Your task to perform on an android device: Set the phone to "Do not disturb". Image 0: 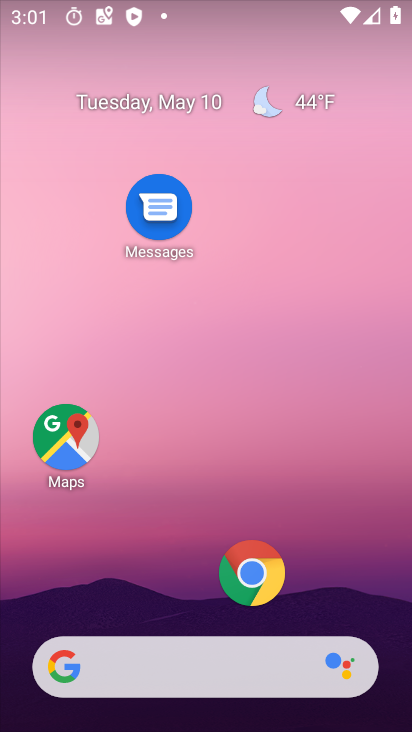
Step 0: drag from (201, 584) to (267, 219)
Your task to perform on an android device: Set the phone to "Do not disturb". Image 1: 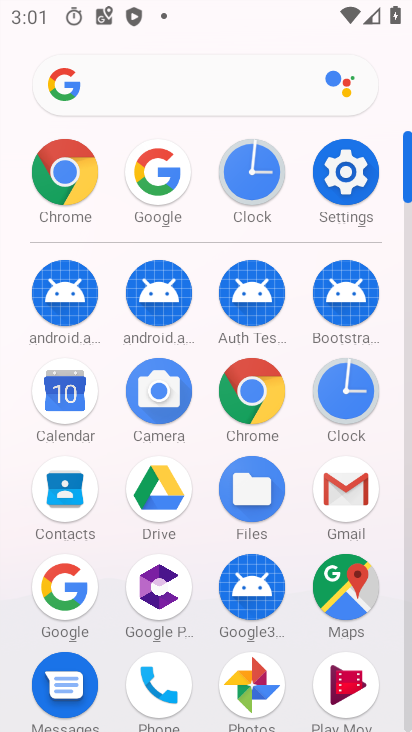
Step 1: click (316, 176)
Your task to perform on an android device: Set the phone to "Do not disturb". Image 2: 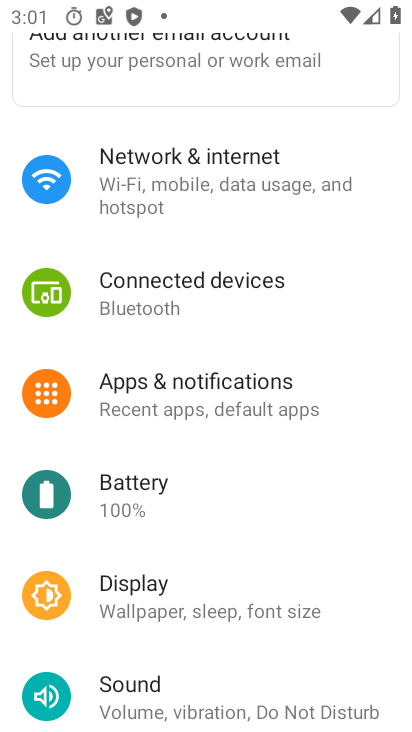
Step 2: click (172, 686)
Your task to perform on an android device: Set the phone to "Do not disturb". Image 3: 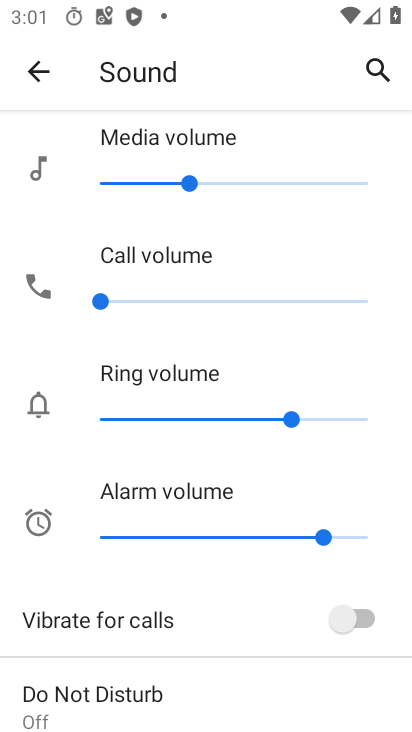
Step 3: drag from (173, 687) to (250, 389)
Your task to perform on an android device: Set the phone to "Do not disturb". Image 4: 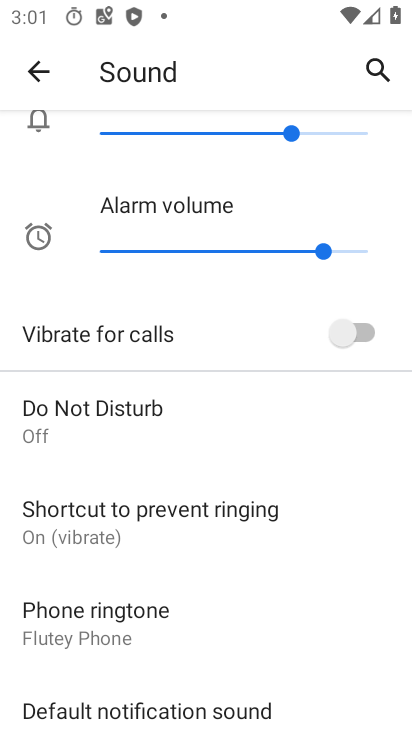
Step 4: click (250, 389)
Your task to perform on an android device: Set the phone to "Do not disturb". Image 5: 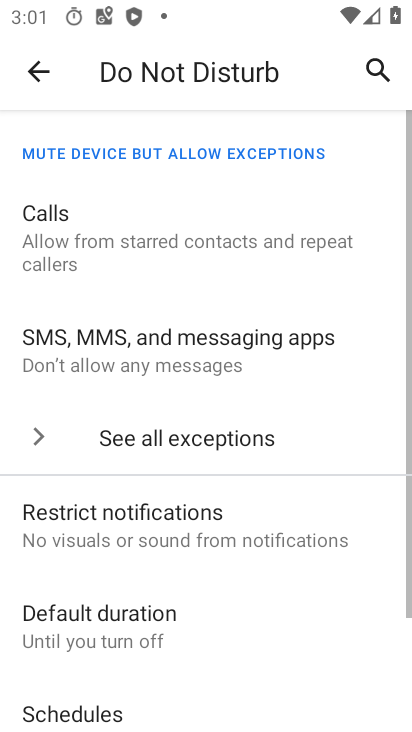
Step 5: drag from (200, 710) to (297, 355)
Your task to perform on an android device: Set the phone to "Do not disturb". Image 6: 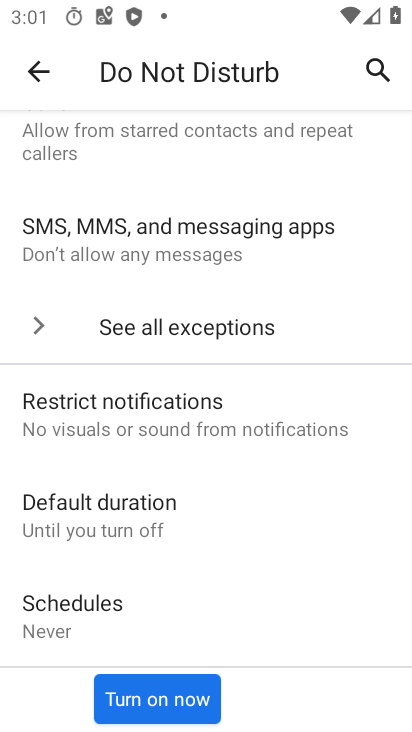
Step 6: drag from (169, 624) to (200, 482)
Your task to perform on an android device: Set the phone to "Do not disturb". Image 7: 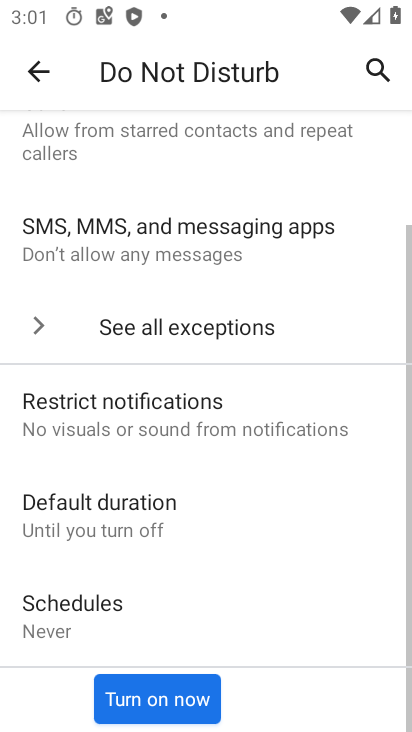
Step 7: click (158, 684)
Your task to perform on an android device: Set the phone to "Do not disturb". Image 8: 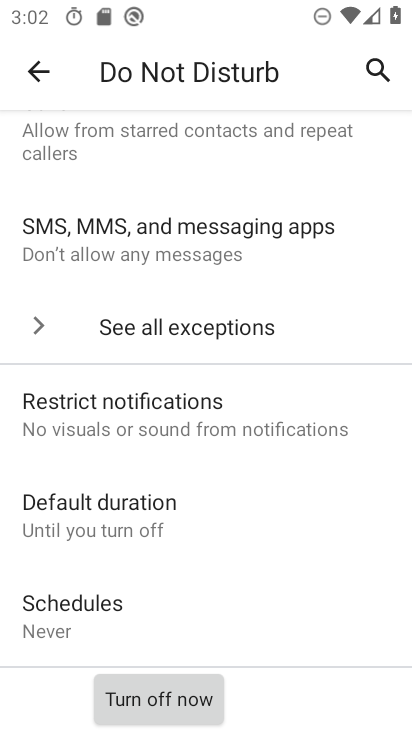
Step 8: task complete